Your task to perform on an android device: toggle notification dots Image 0: 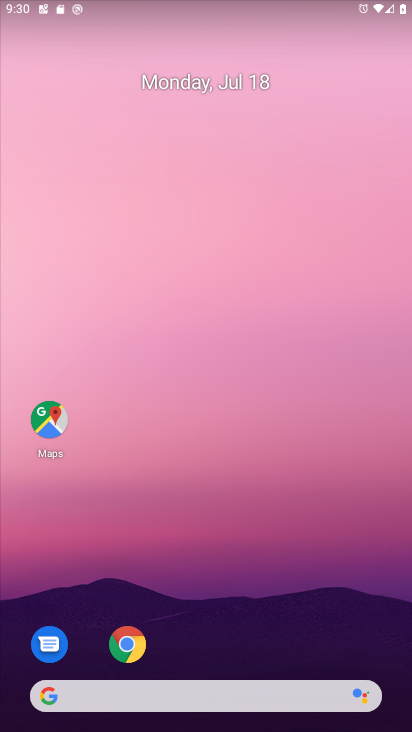
Step 0: drag from (256, 630) to (259, 68)
Your task to perform on an android device: toggle notification dots Image 1: 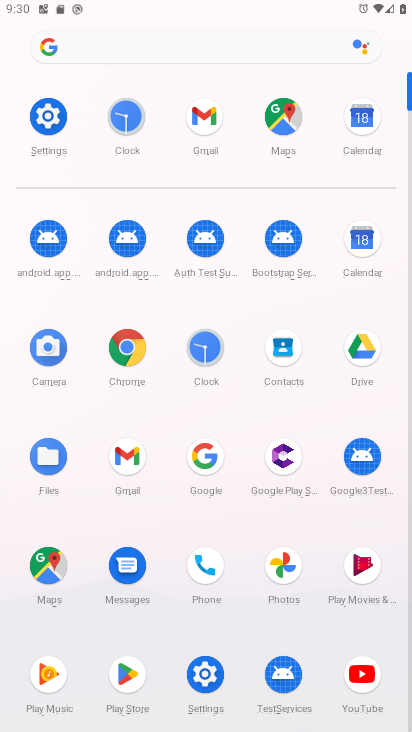
Step 1: click (216, 694)
Your task to perform on an android device: toggle notification dots Image 2: 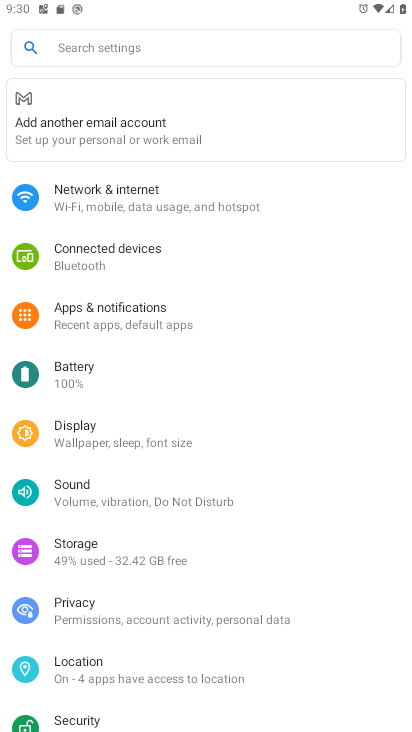
Step 2: click (164, 363)
Your task to perform on an android device: toggle notification dots Image 3: 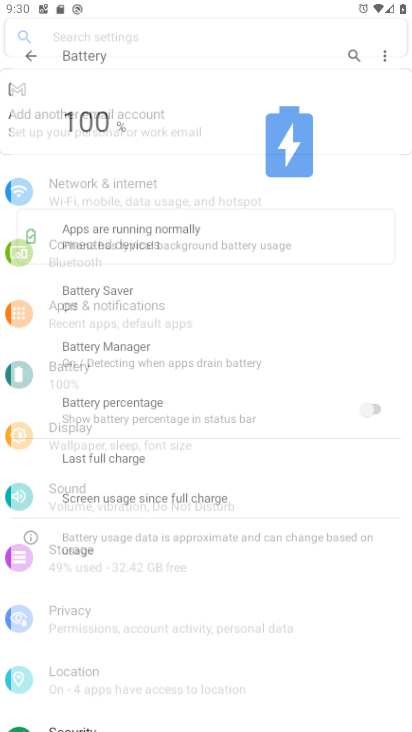
Step 3: task complete